Your task to perform on an android device: allow notifications from all sites in the chrome app Image 0: 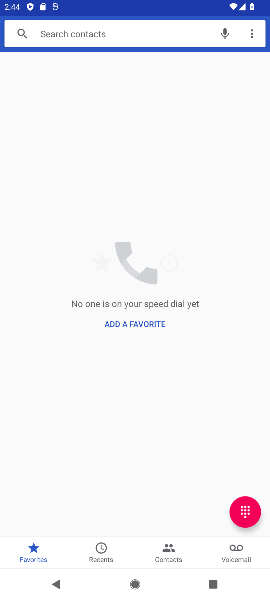
Step 0: press home button
Your task to perform on an android device: allow notifications from all sites in the chrome app Image 1: 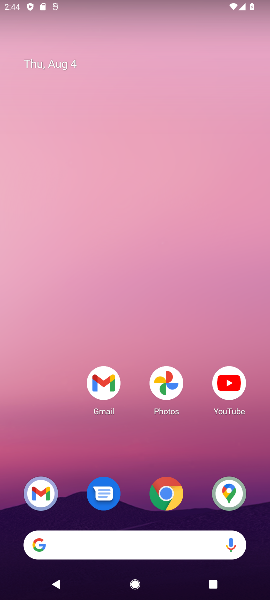
Step 1: click (159, 487)
Your task to perform on an android device: allow notifications from all sites in the chrome app Image 2: 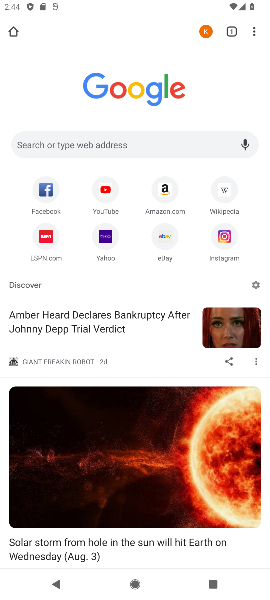
Step 2: click (251, 36)
Your task to perform on an android device: allow notifications from all sites in the chrome app Image 3: 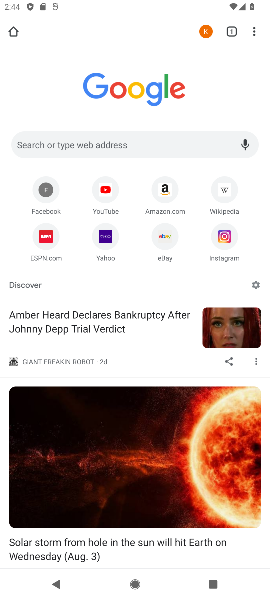
Step 3: click (252, 30)
Your task to perform on an android device: allow notifications from all sites in the chrome app Image 4: 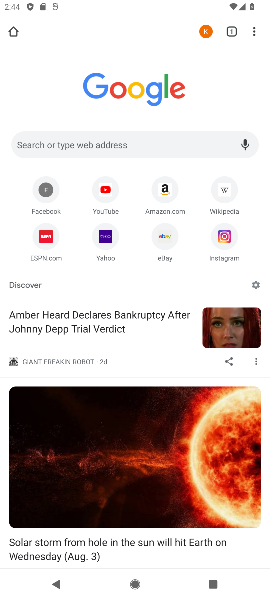
Step 4: click (256, 30)
Your task to perform on an android device: allow notifications from all sites in the chrome app Image 5: 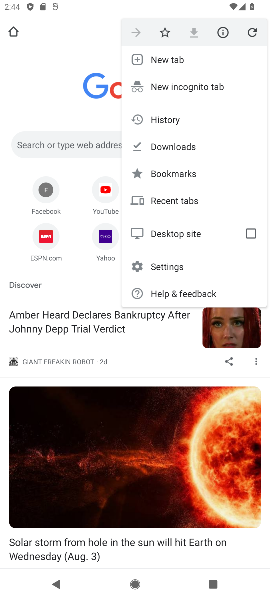
Step 5: click (170, 261)
Your task to perform on an android device: allow notifications from all sites in the chrome app Image 6: 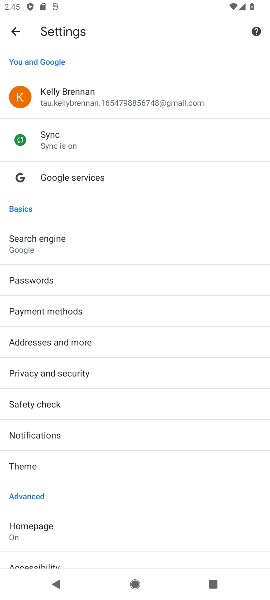
Step 6: drag from (31, 541) to (67, 327)
Your task to perform on an android device: allow notifications from all sites in the chrome app Image 7: 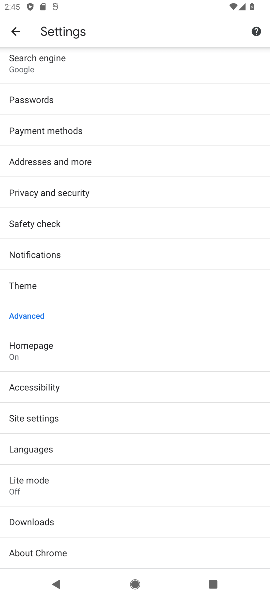
Step 7: click (23, 421)
Your task to perform on an android device: allow notifications from all sites in the chrome app Image 8: 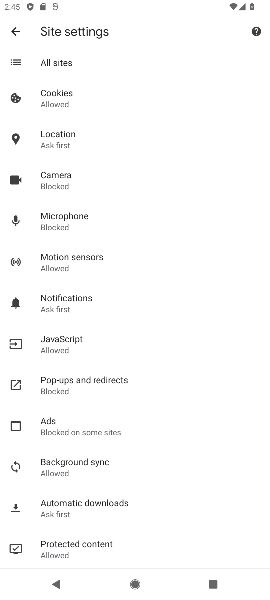
Step 8: click (64, 293)
Your task to perform on an android device: allow notifications from all sites in the chrome app Image 9: 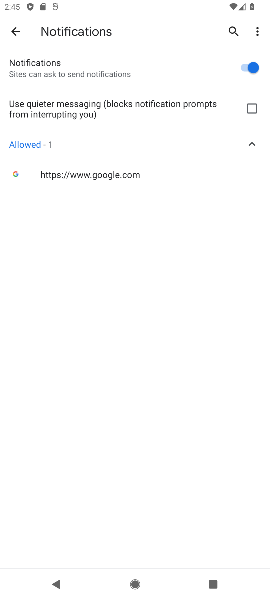
Step 9: task complete